Your task to perform on an android device: toggle location history Image 0: 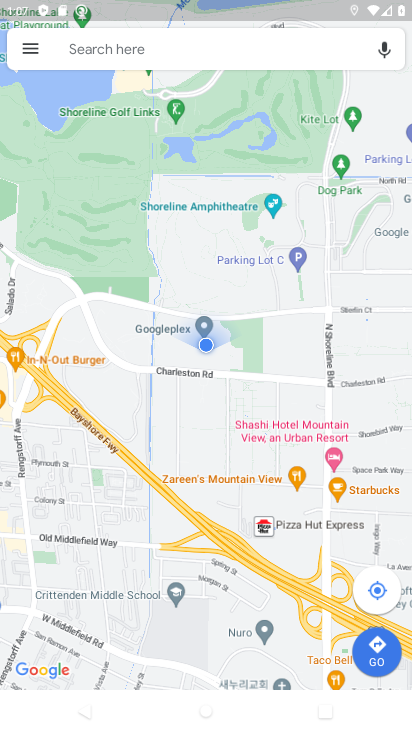
Step 0: click (27, 54)
Your task to perform on an android device: toggle location history Image 1: 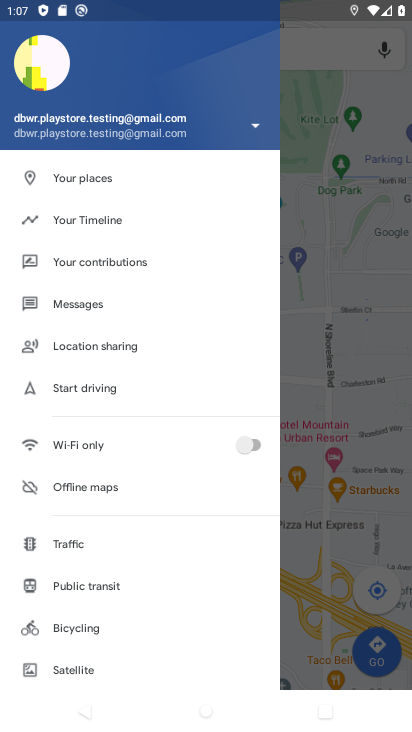
Step 1: drag from (140, 583) to (143, 304)
Your task to perform on an android device: toggle location history Image 2: 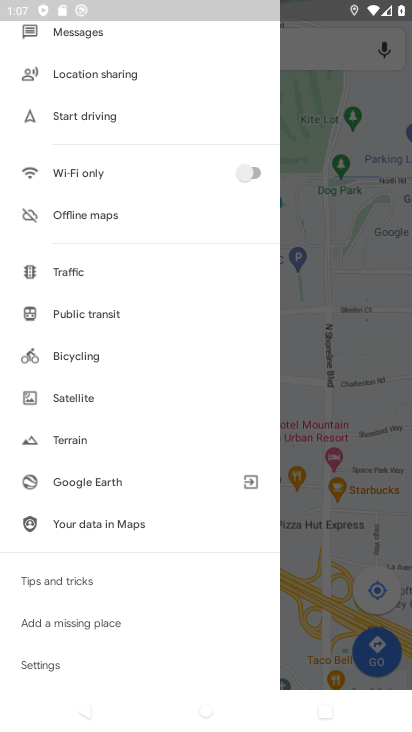
Step 2: click (52, 653)
Your task to perform on an android device: toggle location history Image 3: 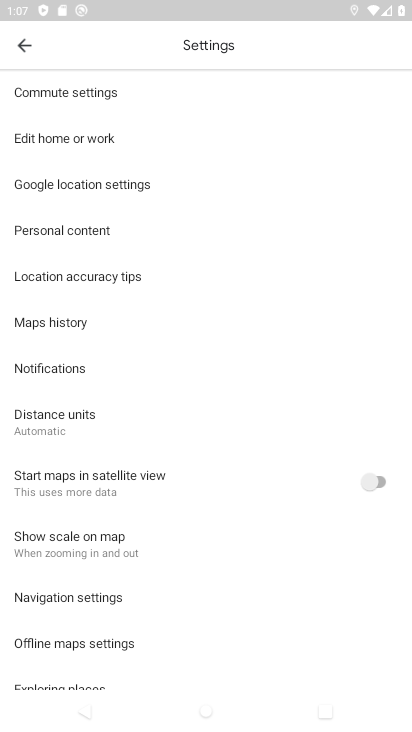
Step 3: click (83, 230)
Your task to perform on an android device: toggle location history Image 4: 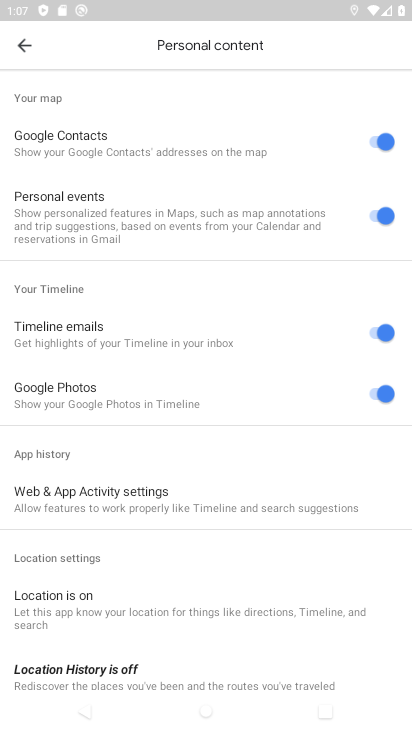
Step 4: drag from (222, 607) to (205, 312)
Your task to perform on an android device: toggle location history Image 5: 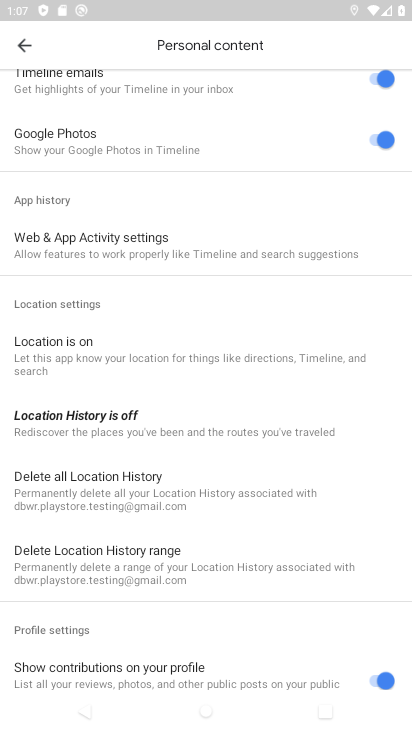
Step 5: click (92, 418)
Your task to perform on an android device: toggle location history Image 6: 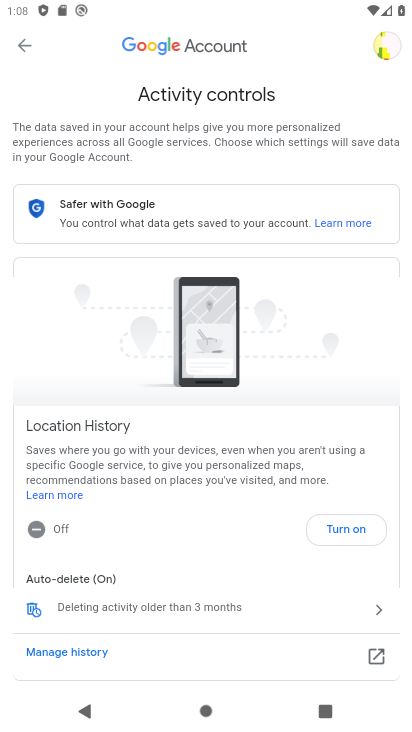
Step 6: click (349, 529)
Your task to perform on an android device: toggle location history Image 7: 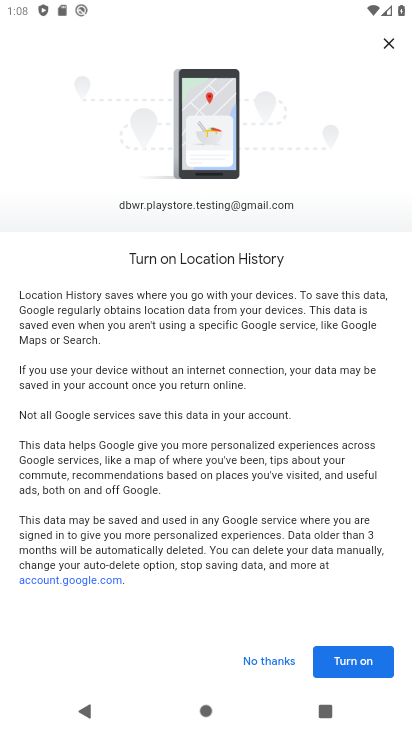
Step 7: click (354, 661)
Your task to perform on an android device: toggle location history Image 8: 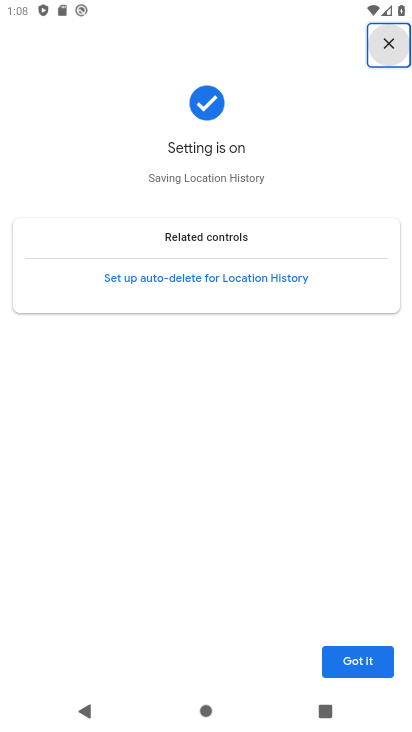
Step 8: click (354, 661)
Your task to perform on an android device: toggle location history Image 9: 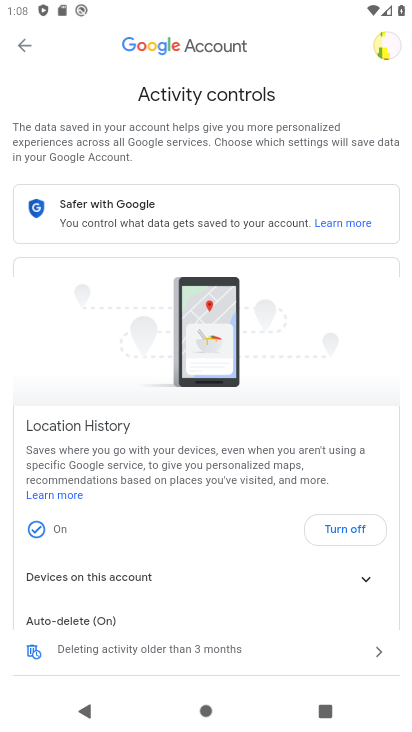
Step 9: task complete